Your task to perform on an android device: Open the web browser Image 0: 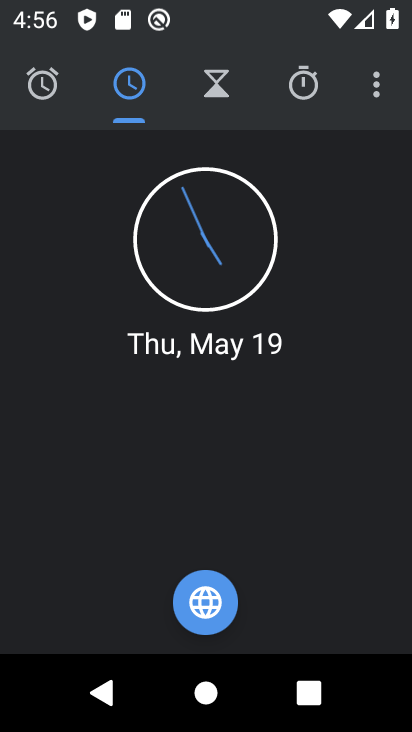
Step 0: press home button
Your task to perform on an android device: Open the web browser Image 1: 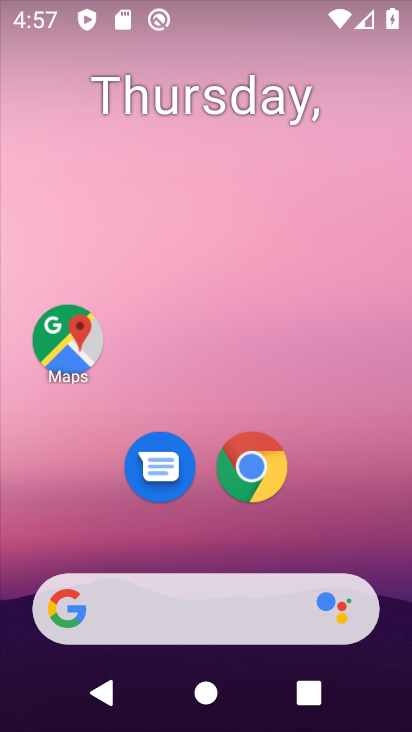
Step 1: click (264, 457)
Your task to perform on an android device: Open the web browser Image 2: 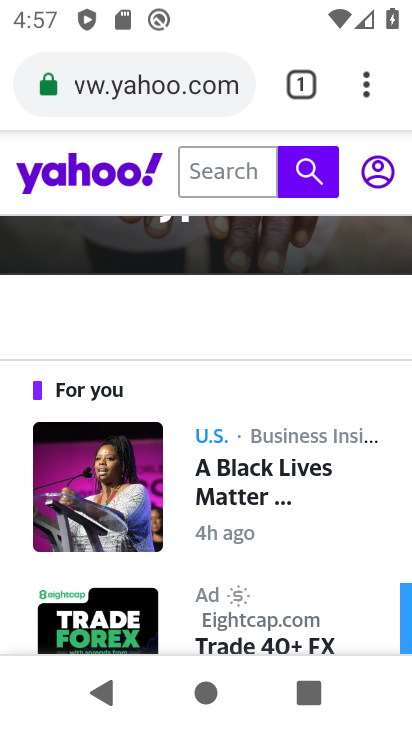
Step 2: task complete